Your task to perform on an android device: uninstall "Walmart Shopping & Grocery" Image 0: 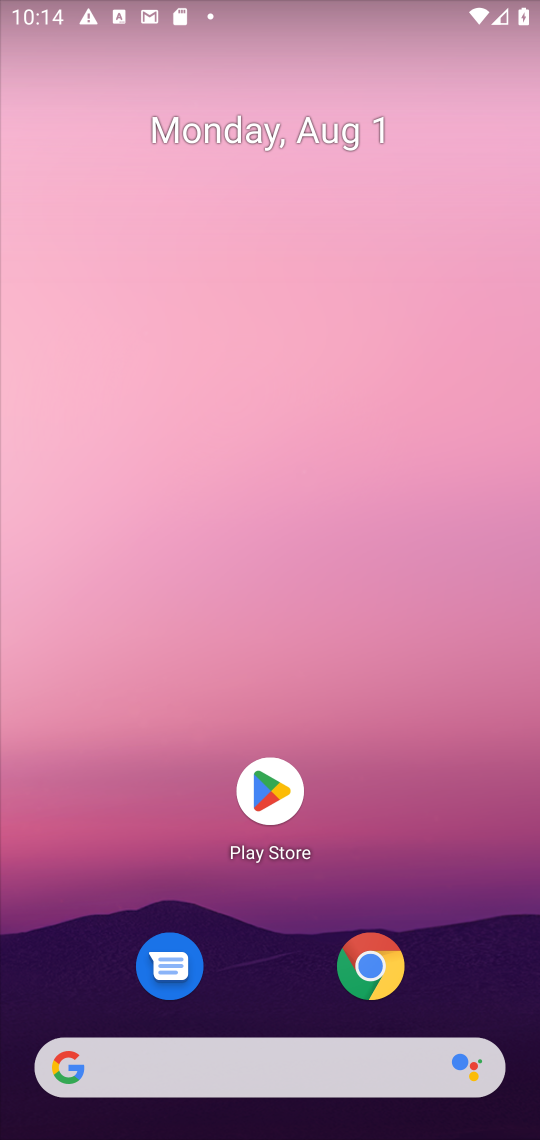
Step 0: click (269, 802)
Your task to perform on an android device: uninstall "Walmart Shopping & Grocery" Image 1: 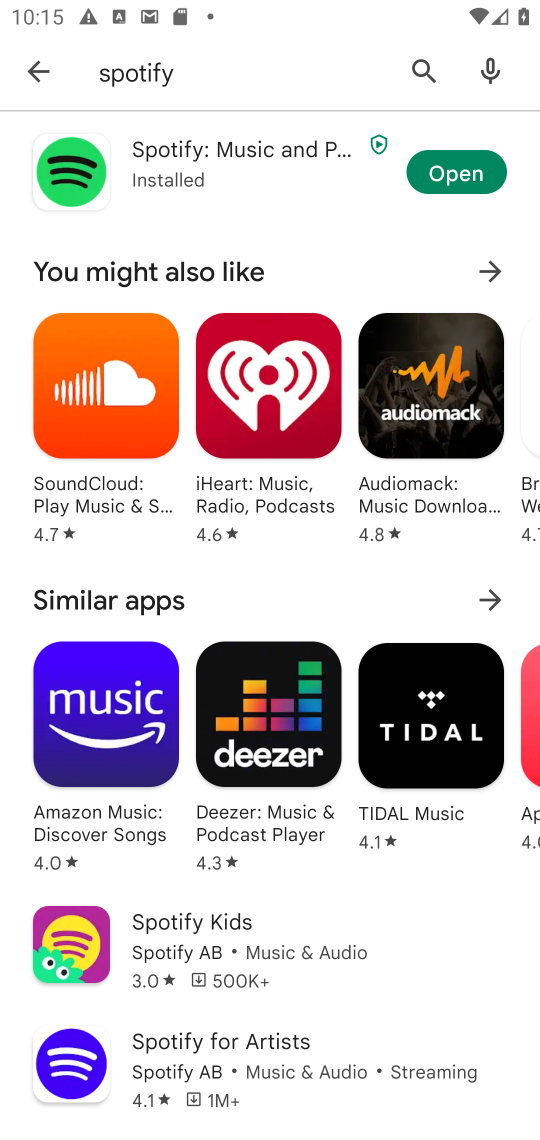
Step 1: press home button
Your task to perform on an android device: uninstall "Walmart Shopping & Grocery" Image 2: 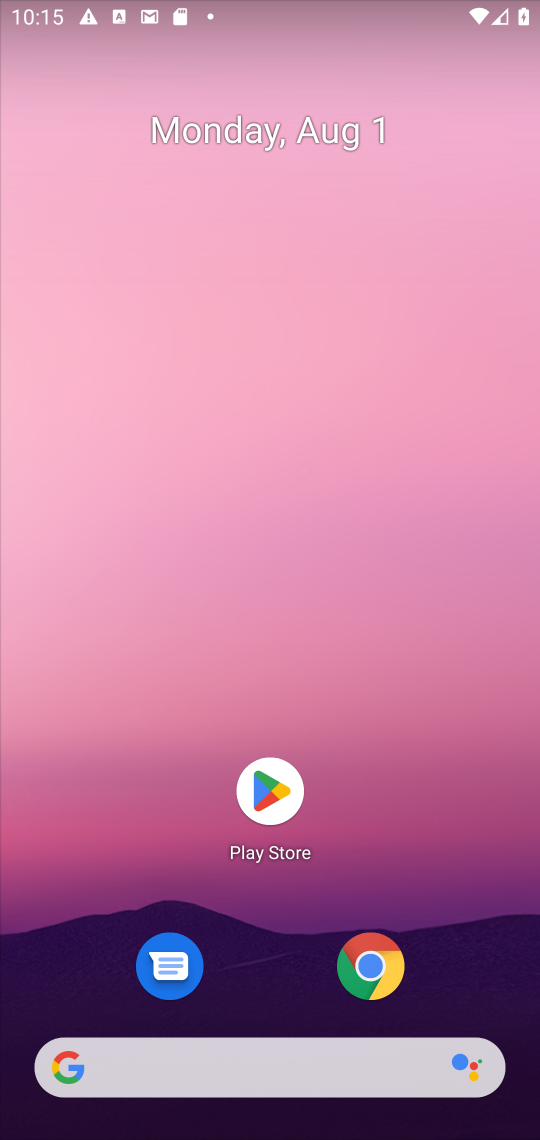
Step 2: click (279, 791)
Your task to perform on an android device: uninstall "Walmart Shopping & Grocery" Image 3: 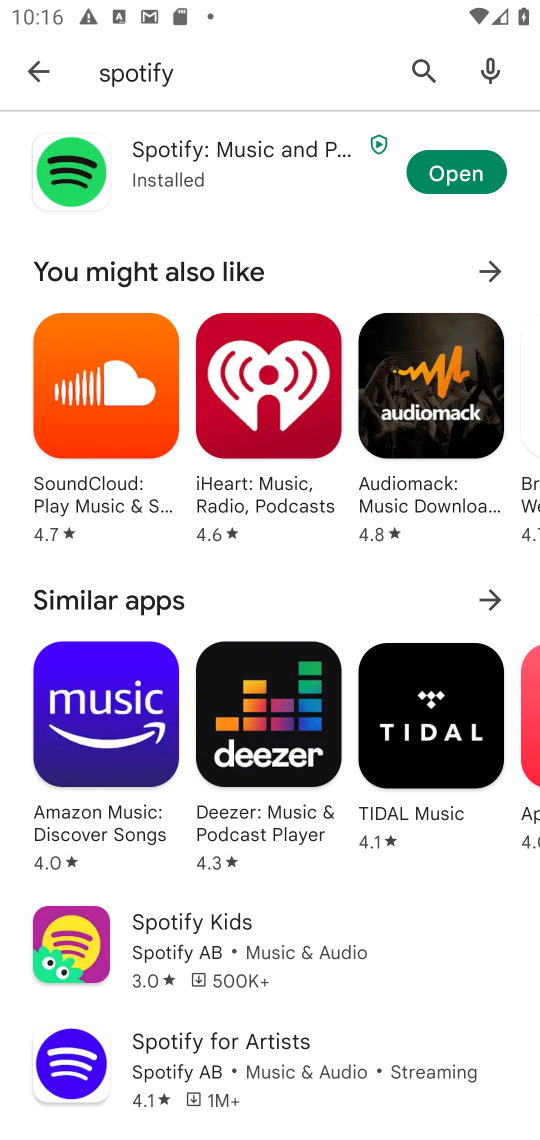
Step 3: click (428, 71)
Your task to perform on an android device: uninstall "Walmart Shopping & Grocery" Image 4: 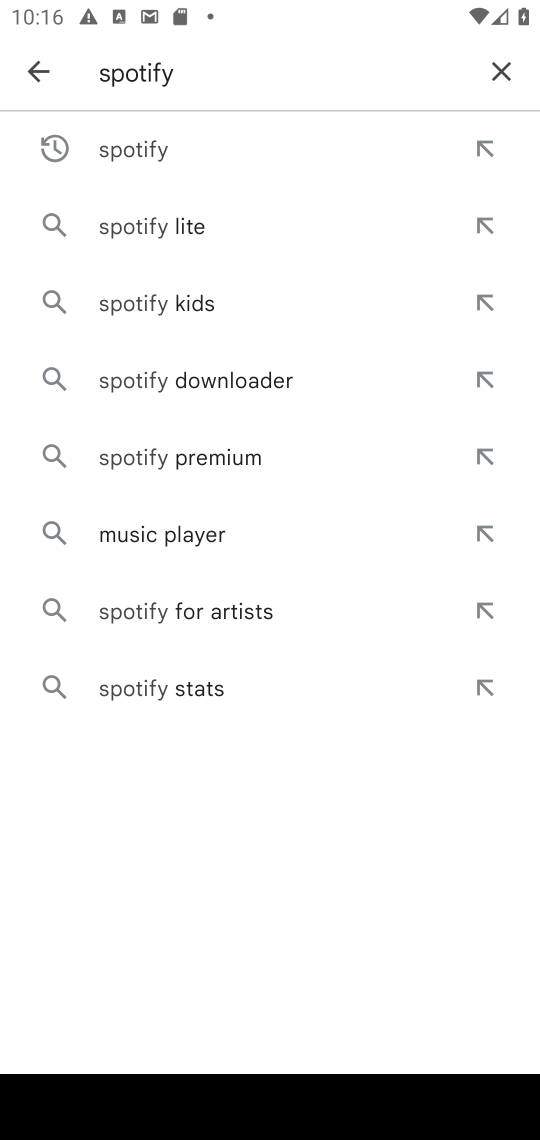
Step 4: click (502, 69)
Your task to perform on an android device: uninstall "Walmart Shopping & Grocery" Image 5: 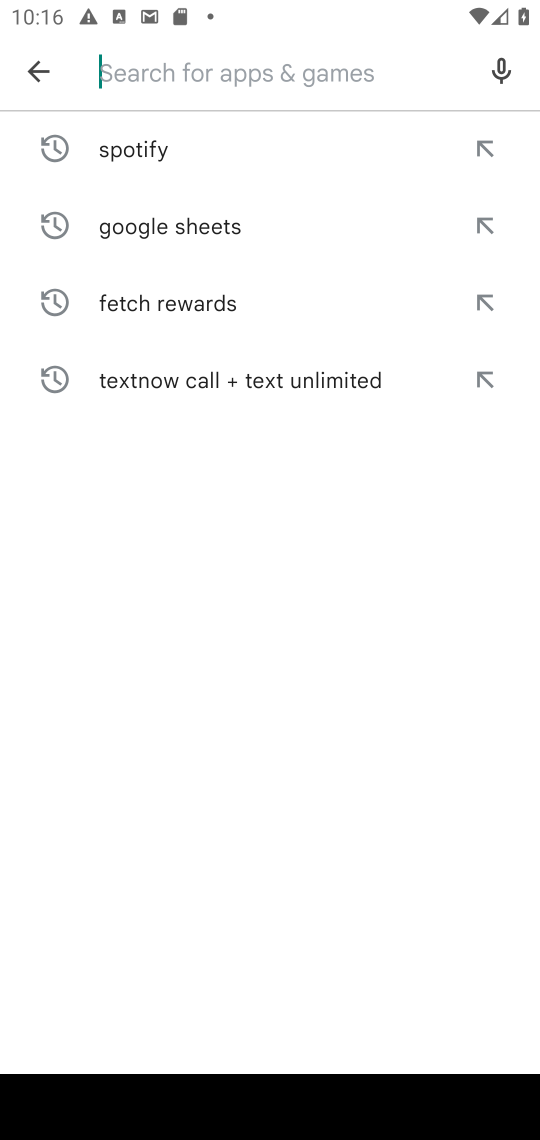
Step 5: type "Walmart Shopping & Grocery"
Your task to perform on an android device: uninstall "Walmart Shopping & Grocery" Image 6: 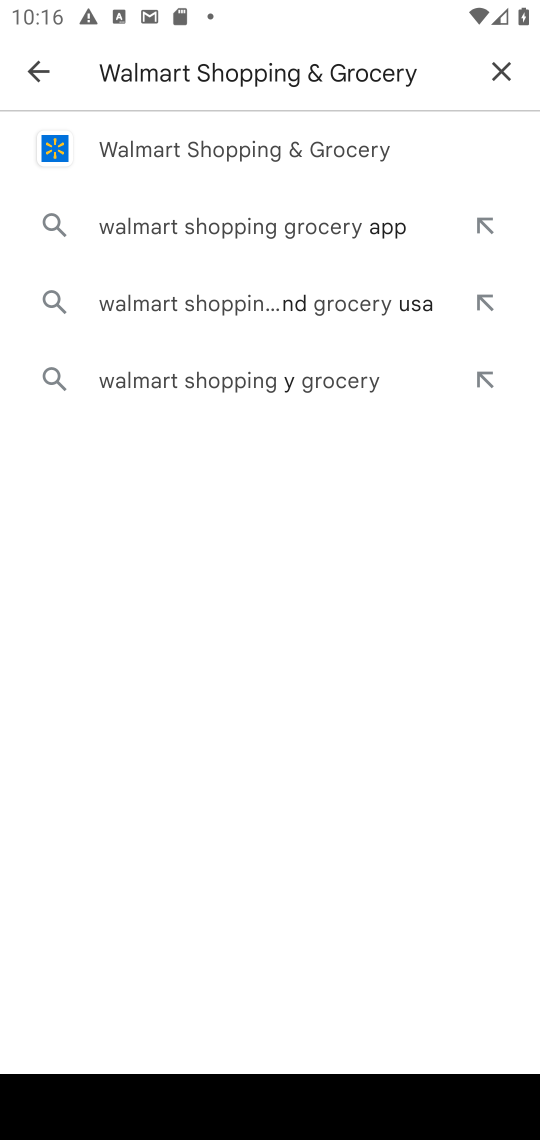
Step 6: click (126, 139)
Your task to perform on an android device: uninstall "Walmart Shopping & Grocery" Image 7: 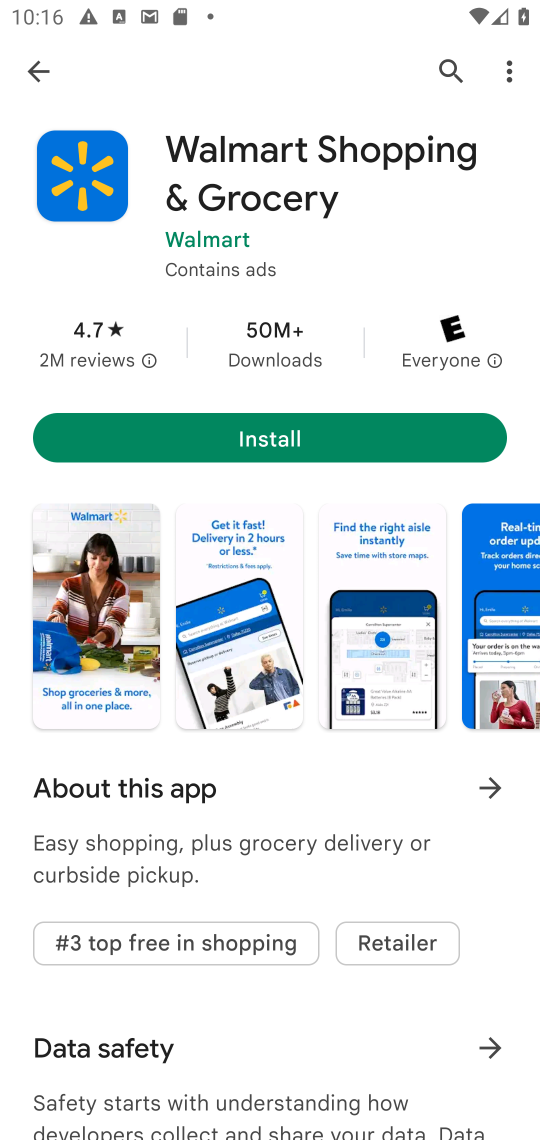
Step 7: click (196, 421)
Your task to perform on an android device: uninstall "Walmart Shopping & Grocery" Image 8: 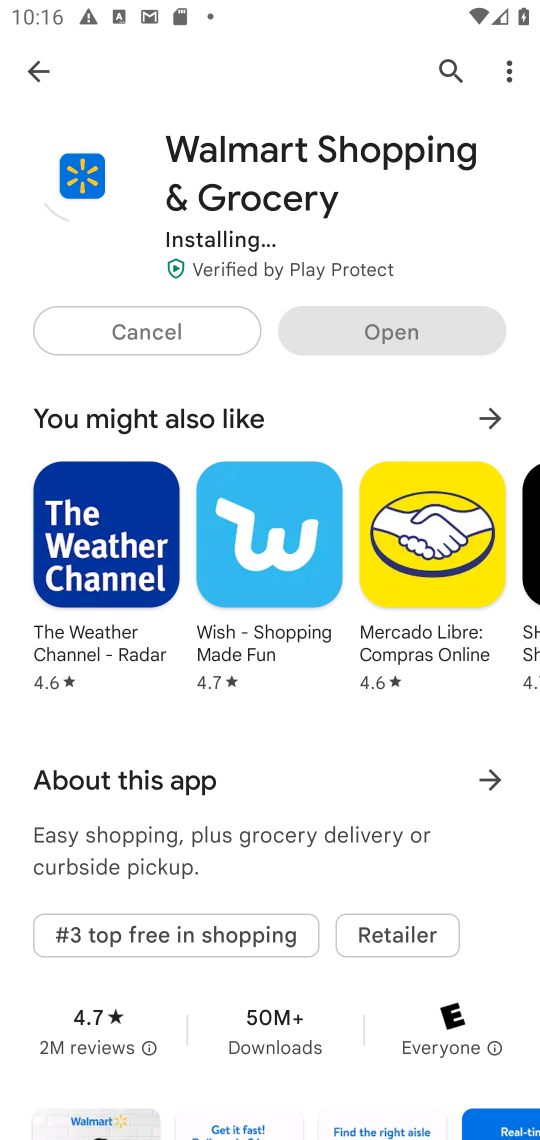
Step 8: click (184, 325)
Your task to perform on an android device: uninstall "Walmart Shopping & Grocery" Image 9: 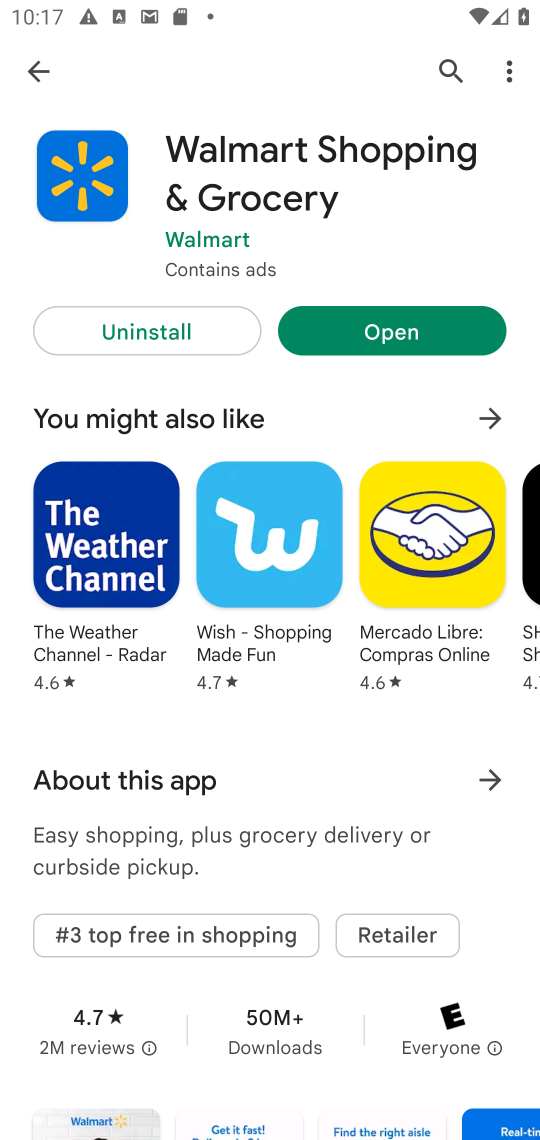
Step 9: click (199, 322)
Your task to perform on an android device: uninstall "Walmart Shopping & Grocery" Image 10: 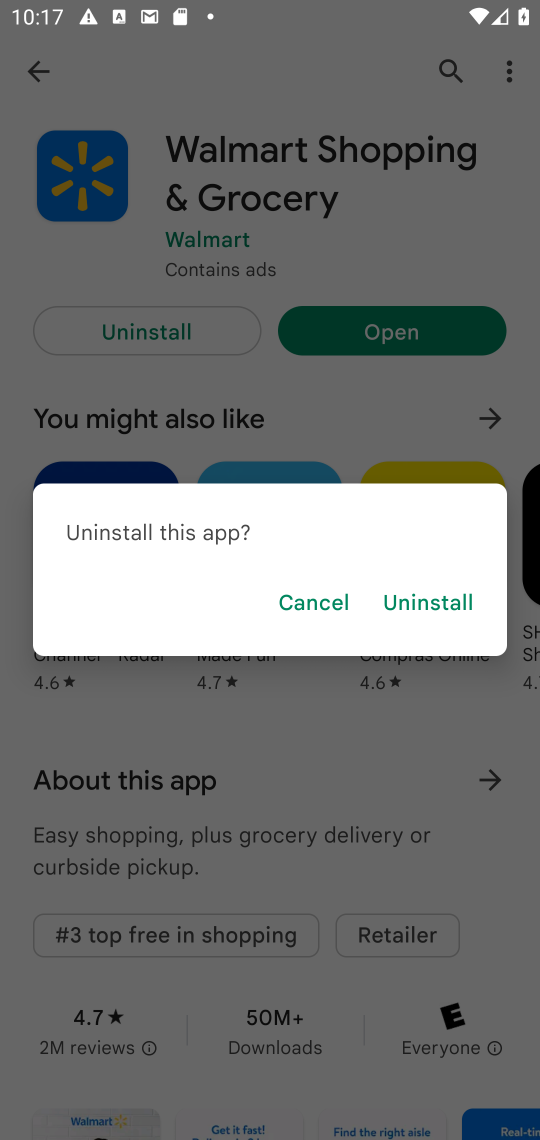
Step 10: click (416, 594)
Your task to perform on an android device: uninstall "Walmart Shopping & Grocery" Image 11: 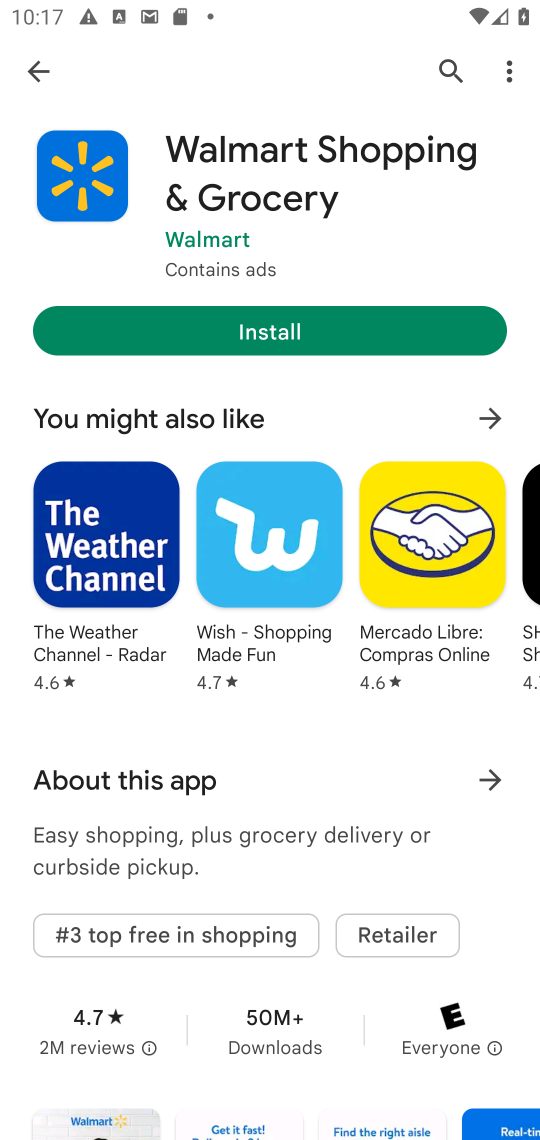
Step 11: task complete